Your task to perform on an android device: check out phone information Image 0: 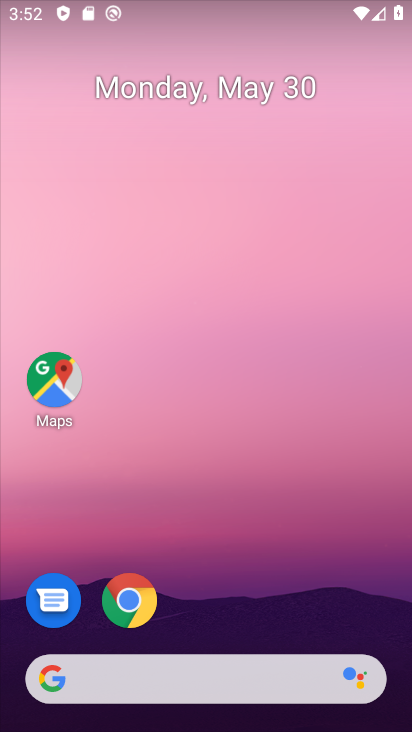
Step 0: drag from (229, 638) to (186, 120)
Your task to perform on an android device: check out phone information Image 1: 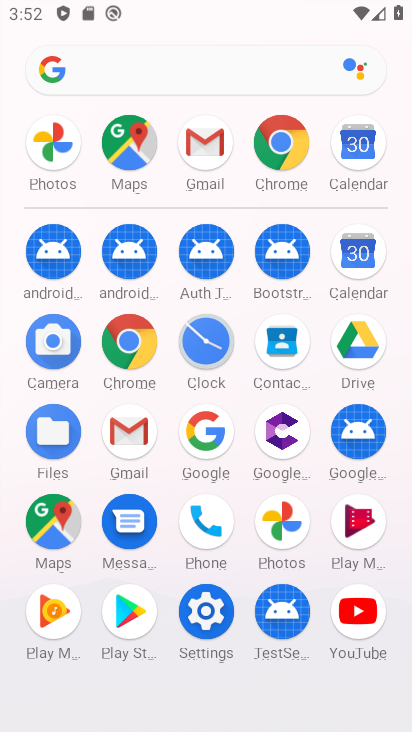
Step 1: click (222, 616)
Your task to perform on an android device: check out phone information Image 2: 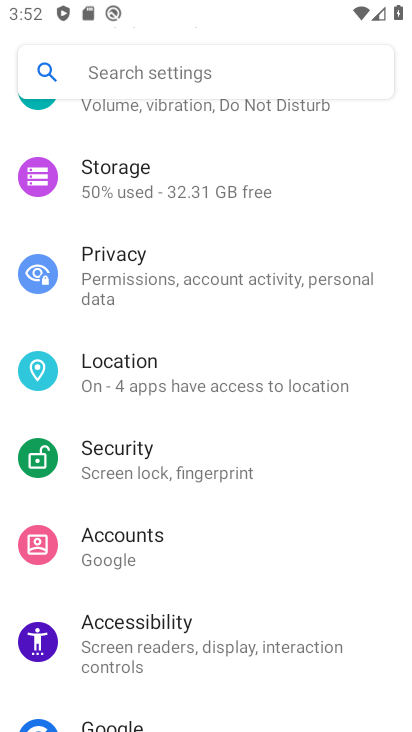
Step 2: drag from (272, 648) to (212, 131)
Your task to perform on an android device: check out phone information Image 3: 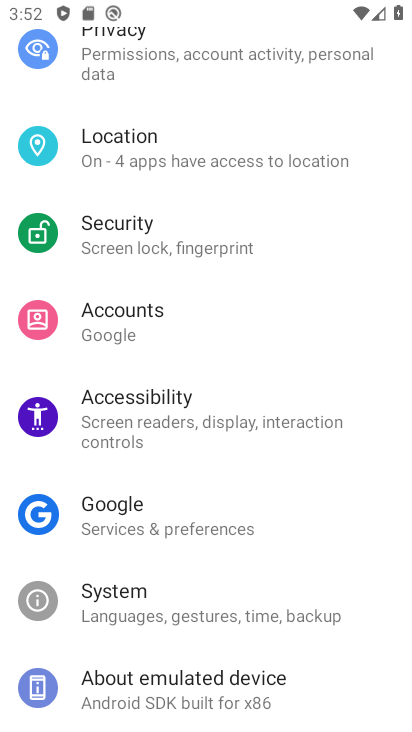
Step 3: click (220, 684)
Your task to perform on an android device: check out phone information Image 4: 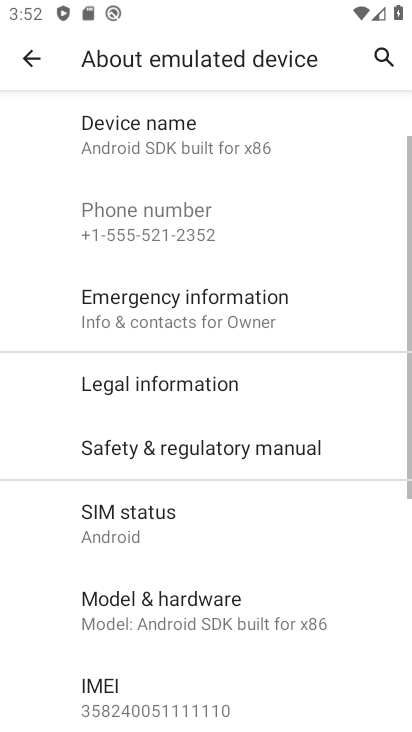
Step 4: task complete